Your task to perform on an android device: Is it going to rain today? Image 0: 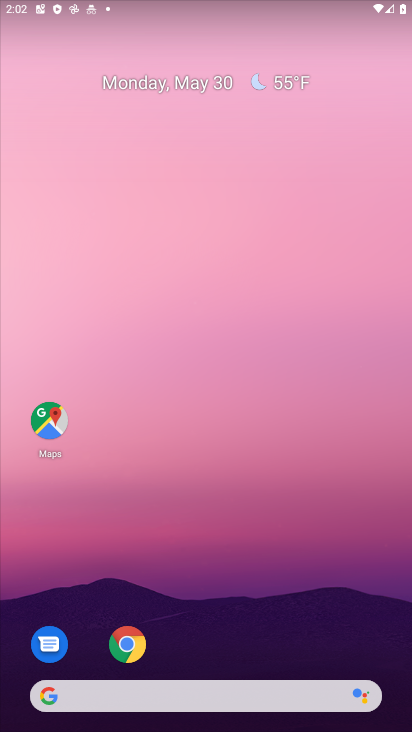
Step 0: click (275, 695)
Your task to perform on an android device: Is it going to rain today? Image 1: 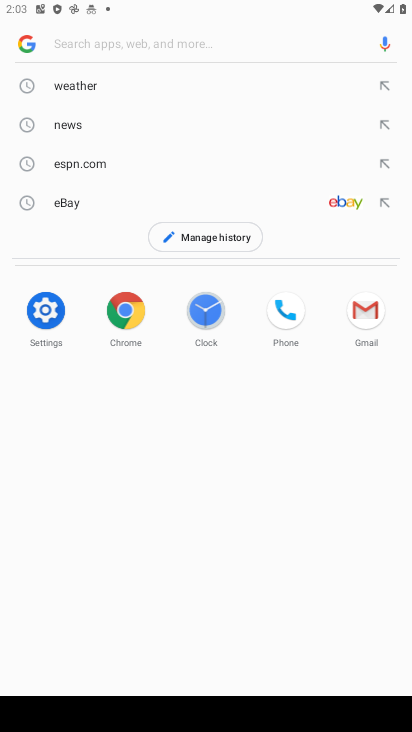
Step 1: press home button
Your task to perform on an android device: Is it going to rain today? Image 2: 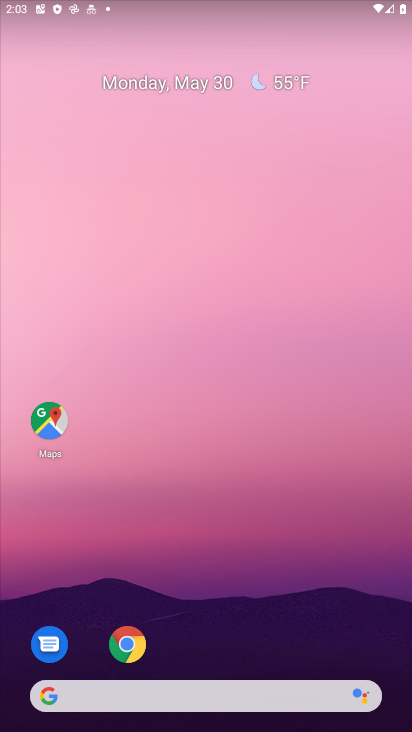
Step 2: click (245, 699)
Your task to perform on an android device: Is it going to rain today? Image 3: 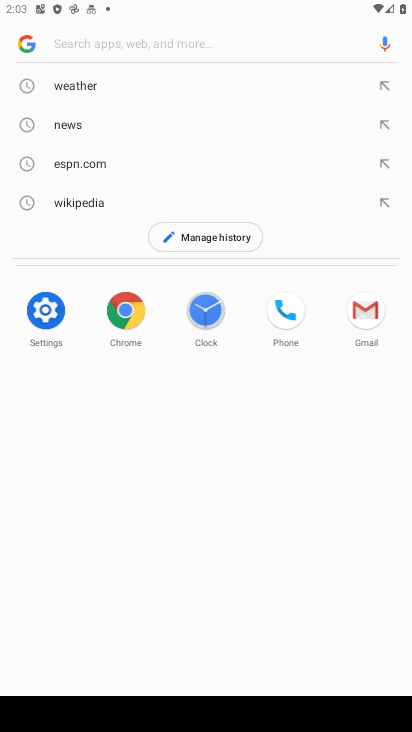
Step 3: click (150, 93)
Your task to perform on an android device: Is it going to rain today? Image 4: 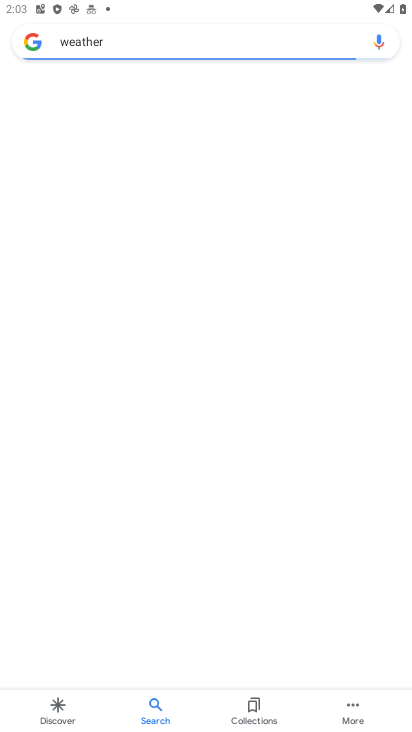
Step 4: task complete